Your task to perform on an android device: Is it going to rain this weekend? Image 0: 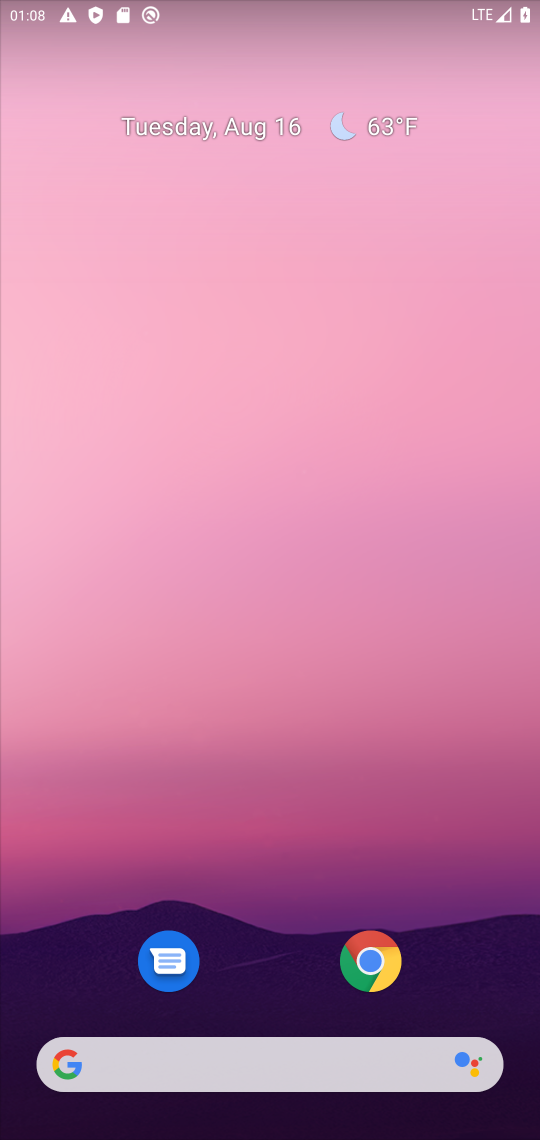
Step 0: press home button
Your task to perform on an android device: Is it going to rain this weekend? Image 1: 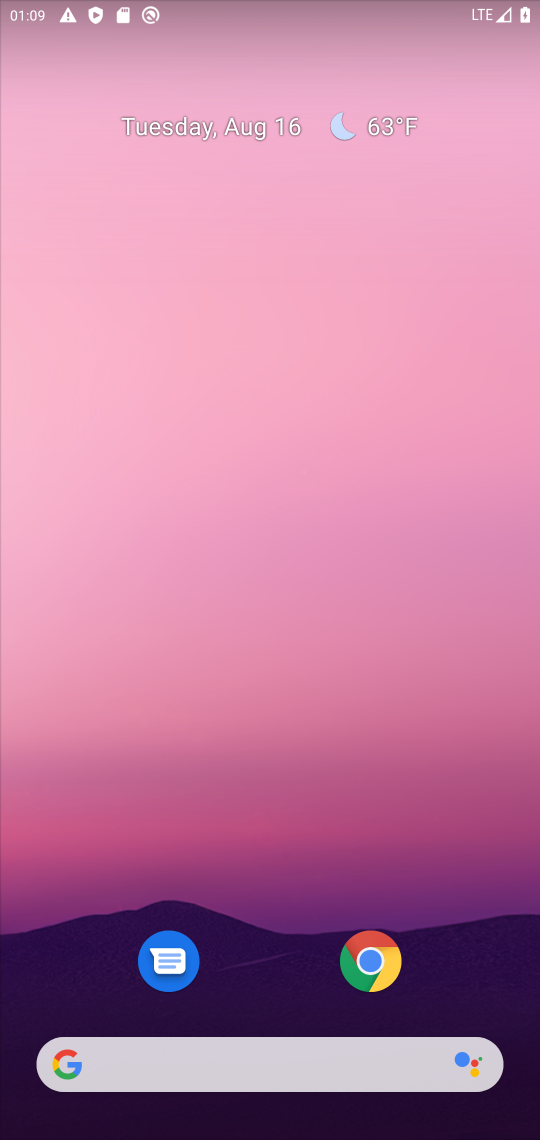
Step 1: drag from (322, 971) to (334, 97)
Your task to perform on an android device: Is it going to rain this weekend? Image 2: 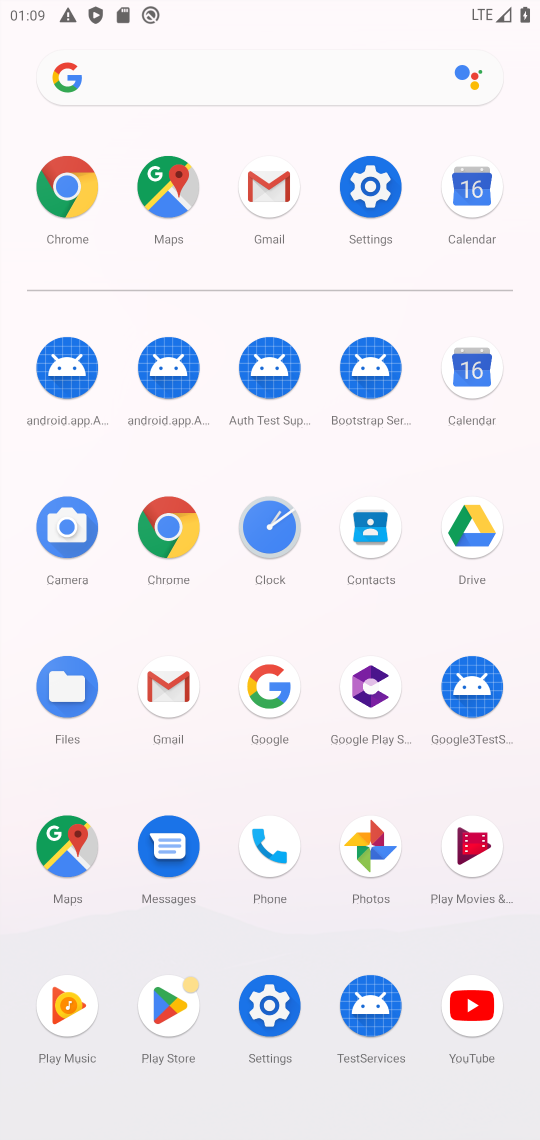
Step 2: click (98, 203)
Your task to perform on an android device: Is it going to rain this weekend? Image 3: 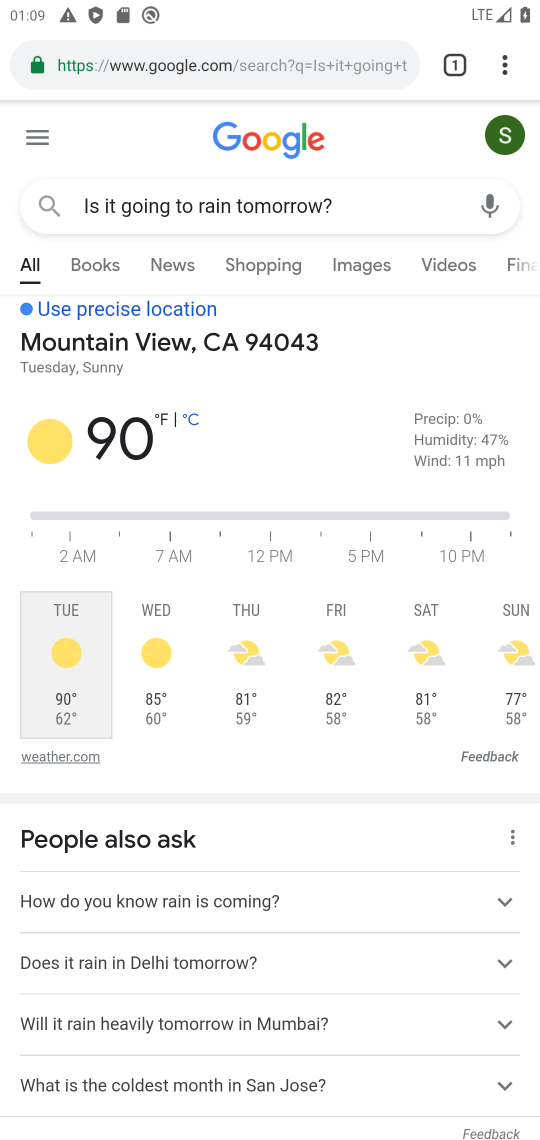
Step 3: click (195, 62)
Your task to perform on an android device: Is it going to rain this weekend? Image 4: 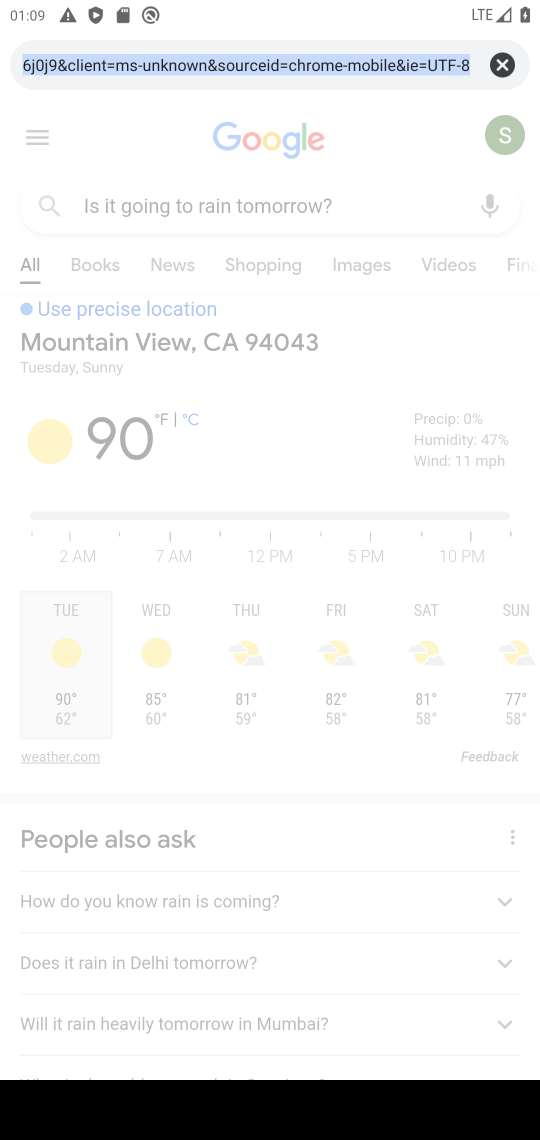
Step 4: click (207, 545)
Your task to perform on an android device: Is it going to rain this weekend? Image 5: 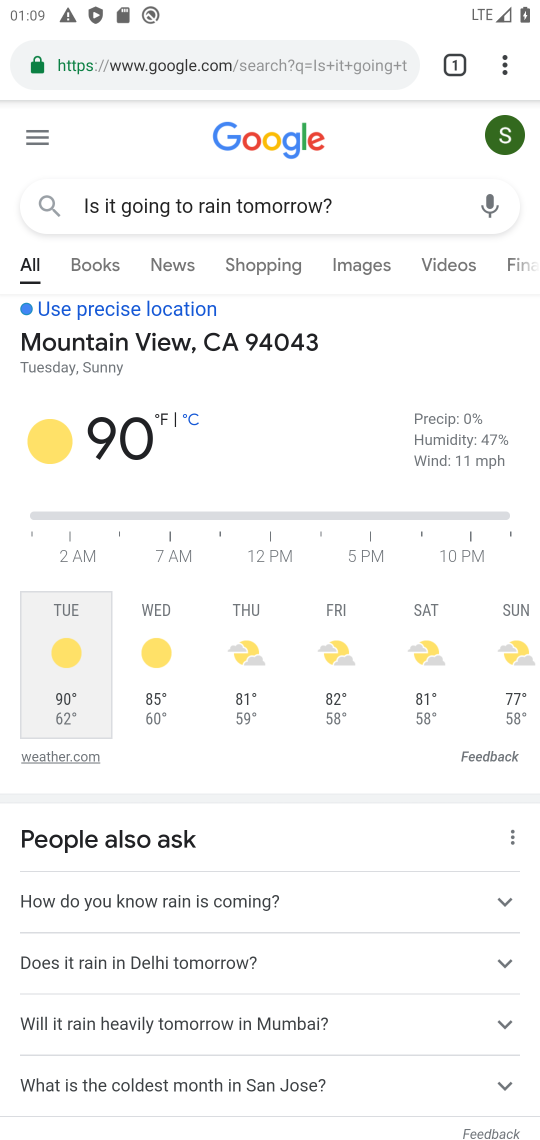
Step 5: click (262, 59)
Your task to perform on an android device: Is it going to rain this weekend? Image 6: 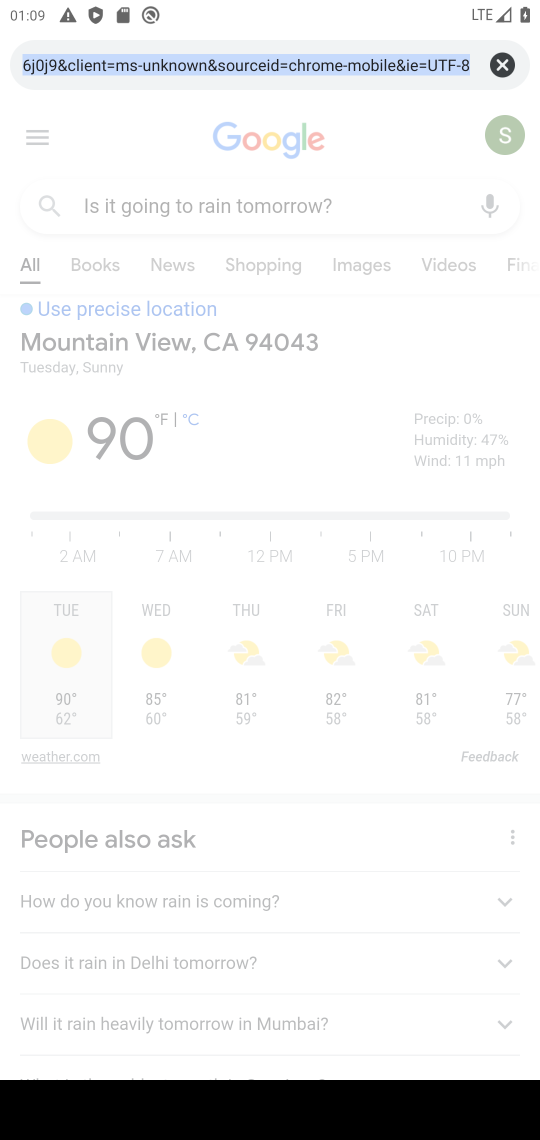
Step 6: type "Is it going to rain this weekend?"
Your task to perform on an android device: Is it going to rain this weekend? Image 7: 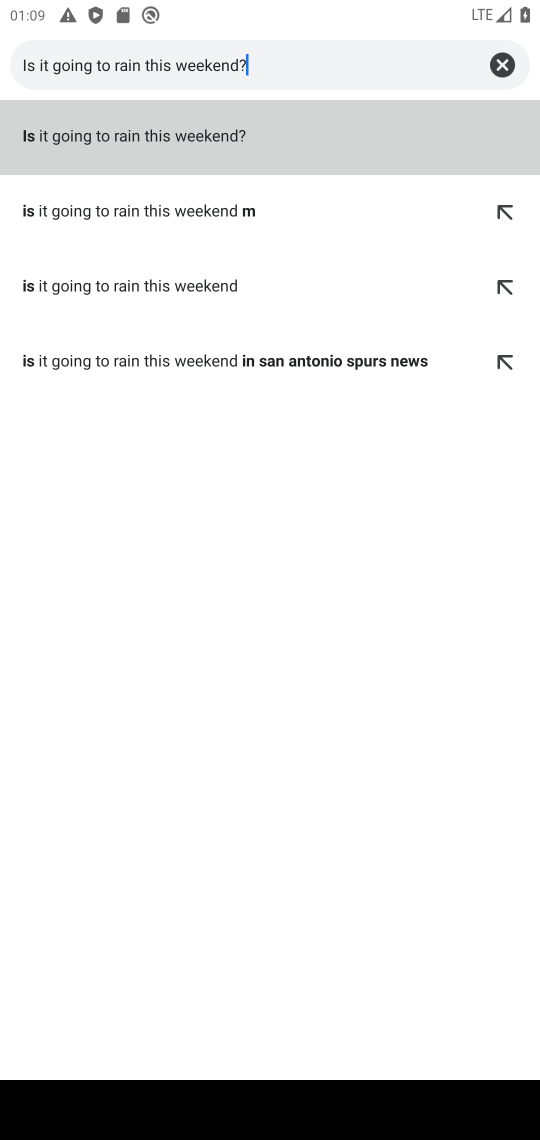
Step 7: type ""
Your task to perform on an android device: Is it going to rain this weekend? Image 8: 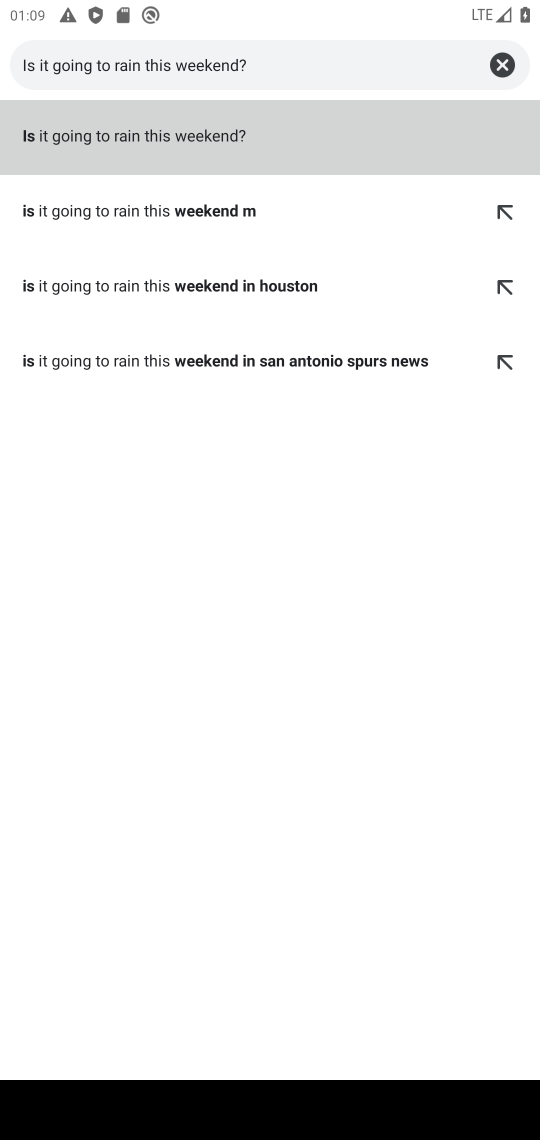
Step 8: click (243, 141)
Your task to perform on an android device: Is it going to rain this weekend? Image 9: 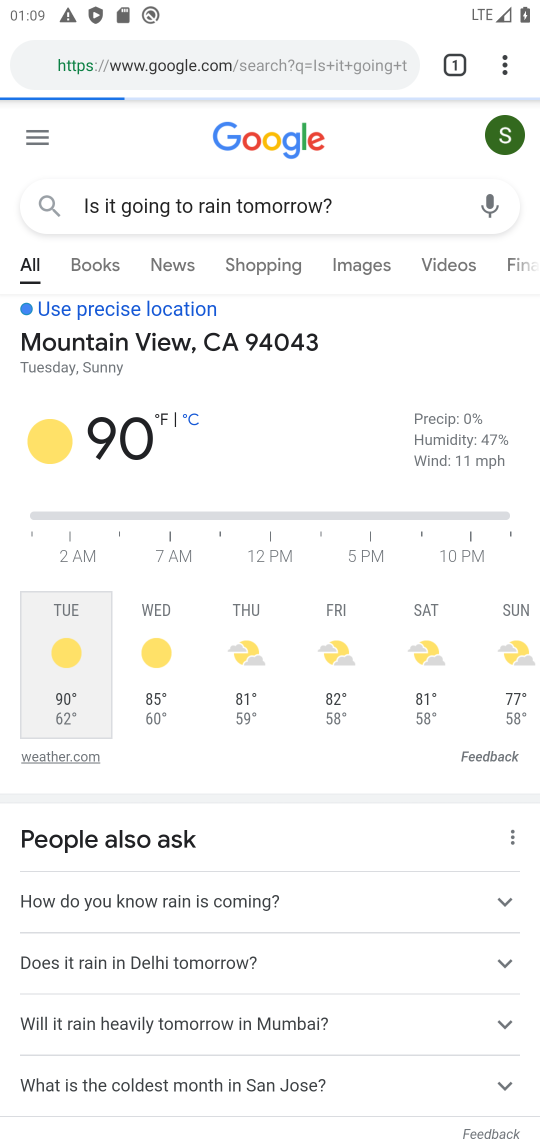
Step 9: task complete